Your task to perform on an android device: toggle location history Image 0: 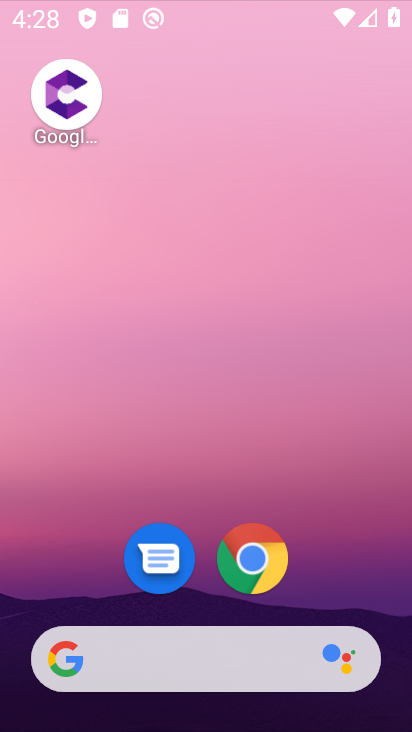
Step 0: click (259, 102)
Your task to perform on an android device: toggle location history Image 1: 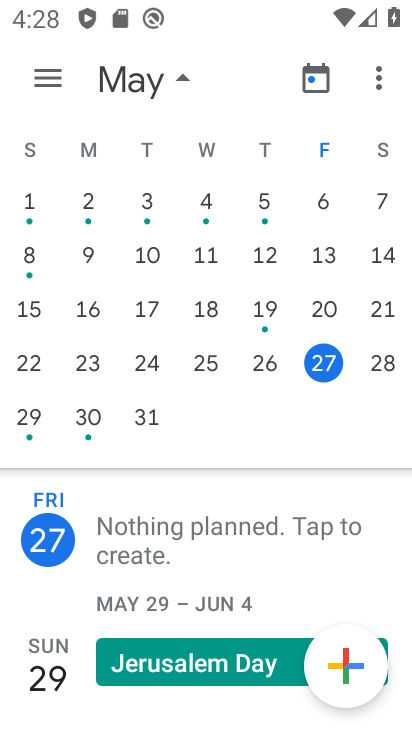
Step 1: press home button
Your task to perform on an android device: toggle location history Image 2: 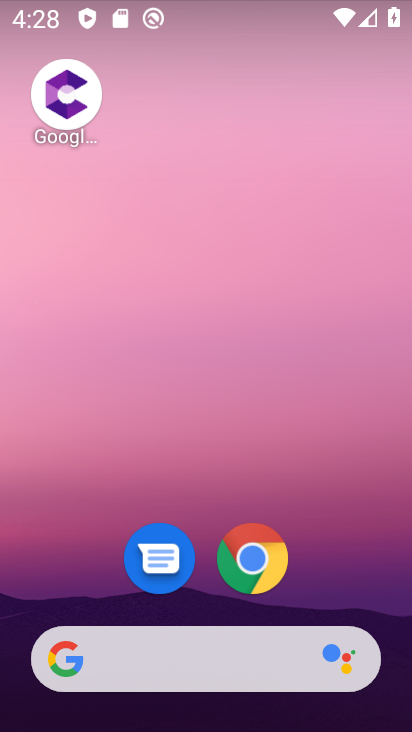
Step 2: drag from (359, 607) to (231, 64)
Your task to perform on an android device: toggle location history Image 3: 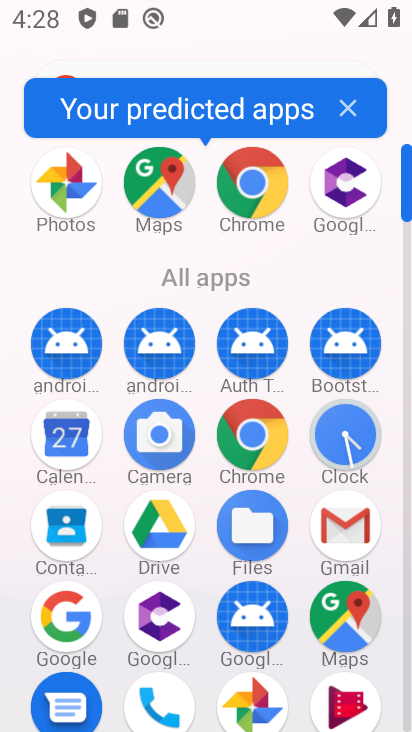
Step 3: click (157, 188)
Your task to perform on an android device: toggle location history Image 4: 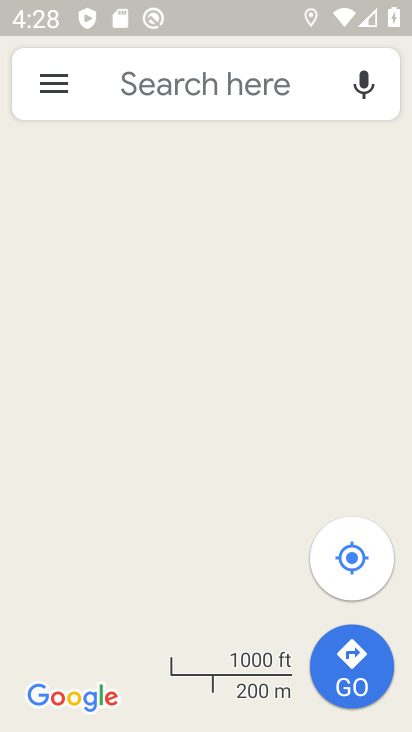
Step 4: click (50, 94)
Your task to perform on an android device: toggle location history Image 5: 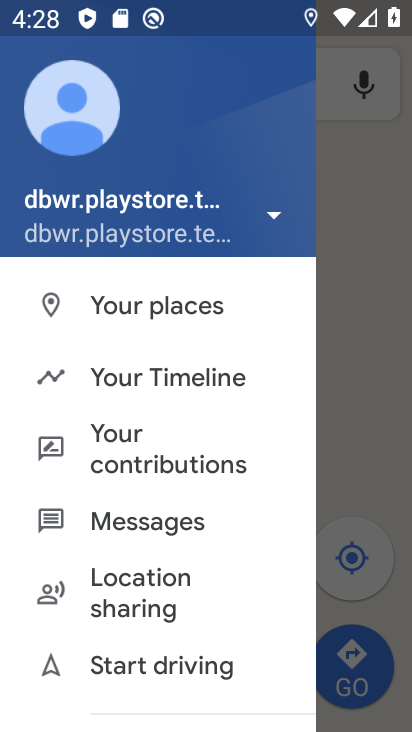
Step 5: click (147, 378)
Your task to perform on an android device: toggle location history Image 6: 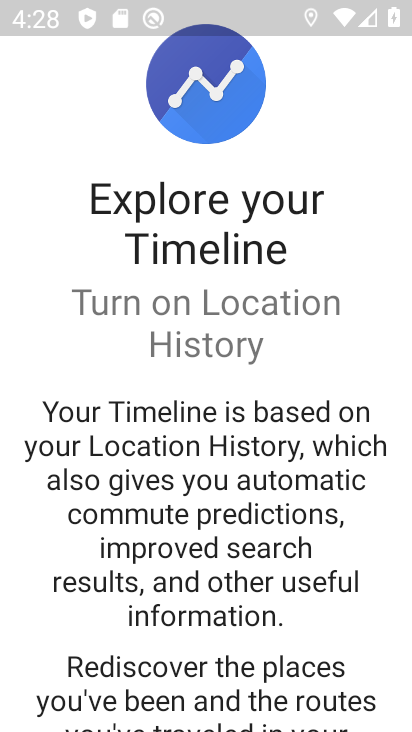
Step 6: drag from (284, 641) to (294, 308)
Your task to perform on an android device: toggle location history Image 7: 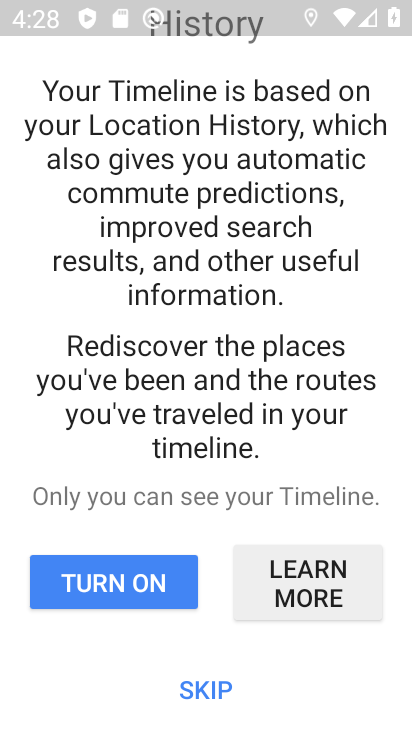
Step 7: click (195, 691)
Your task to perform on an android device: toggle location history Image 8: 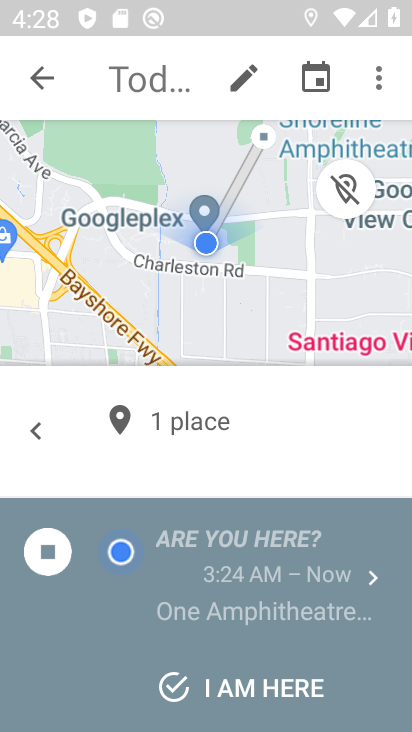
Step 8: click (385, 59)
Your task to perform on an android device: toggle location history Image 9: 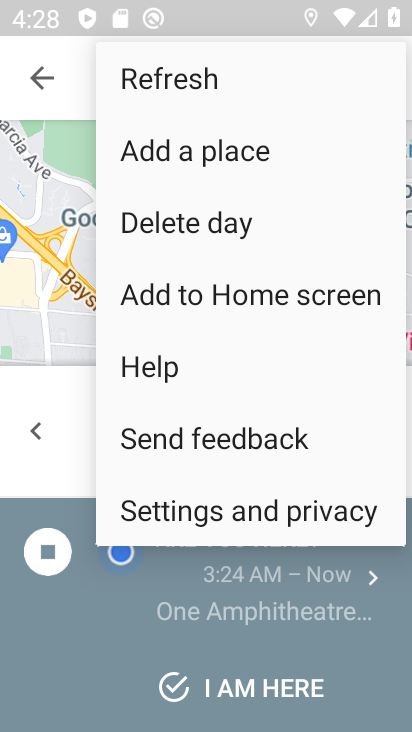
Step 9: click (266, 511)
Your task to perform on an android device: toggle location history Image 10: 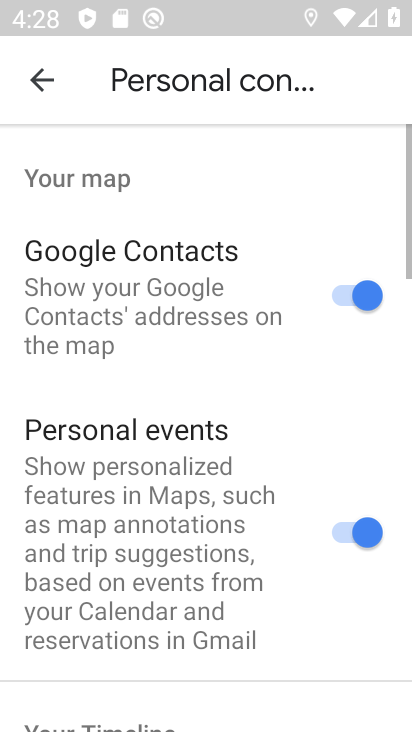
Step 10: drag from (269, 630) to (220, 69)
Your task to perform on an android device: toggle location history Image 11: 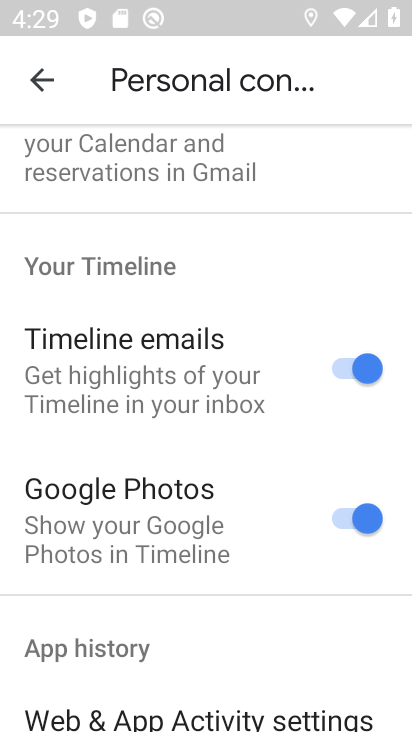
Step 11: drag from (242, 652) to (223, 234)
Your task to perform on an android device: toggle location history Image 12: 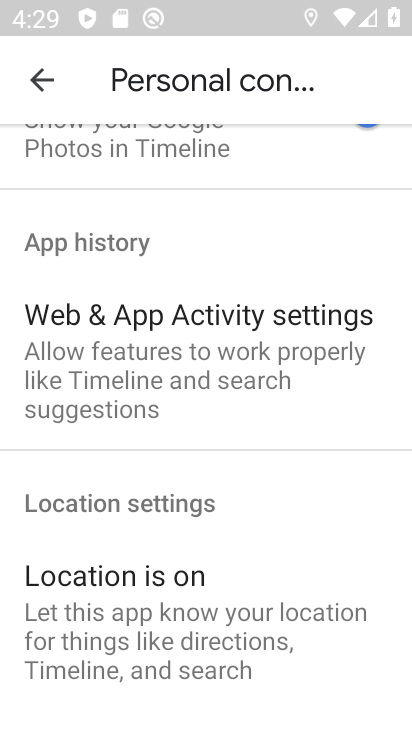
Step 12: drag from (249, 603) to (211, 314)
Your task to perform on an android device: toggle location history Image 13: 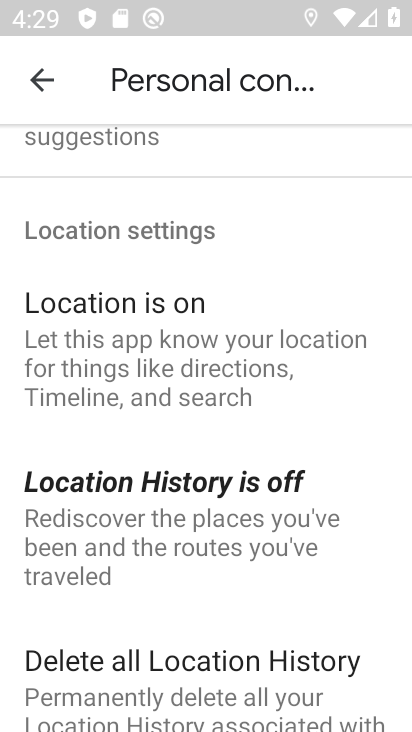
Step 13: click (232, 524)
Your task to perform on an android device: toggle location history Image 14: 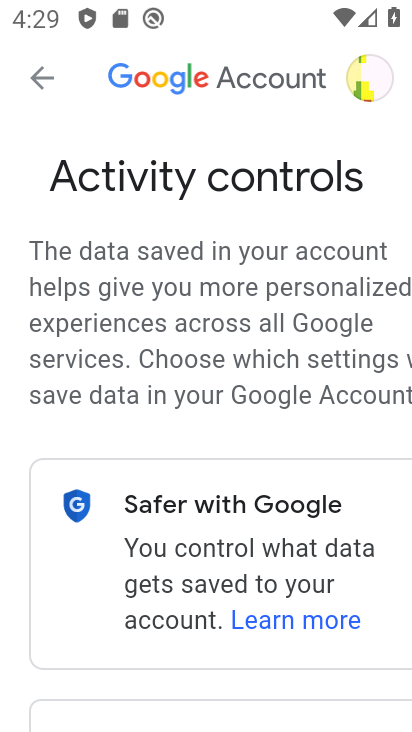
Step 14: drag from (189, 686) to (188, 258)
Your task to perform on an android device: toggle location history Image 15: 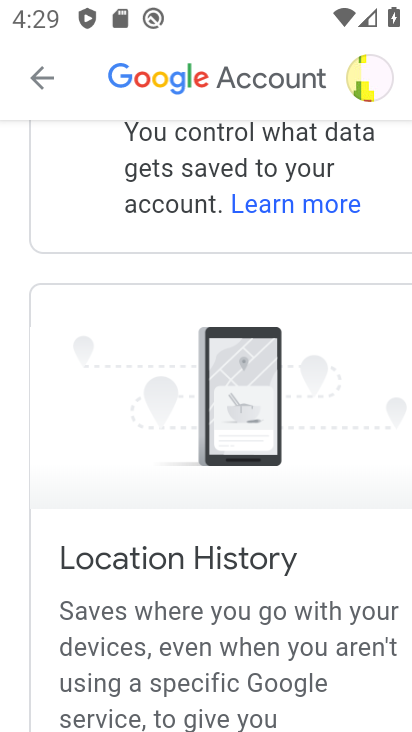
Step 15: drag from (230, 616) to (208, 257)
Your task to perform on an android device: toggle location history Image 16: 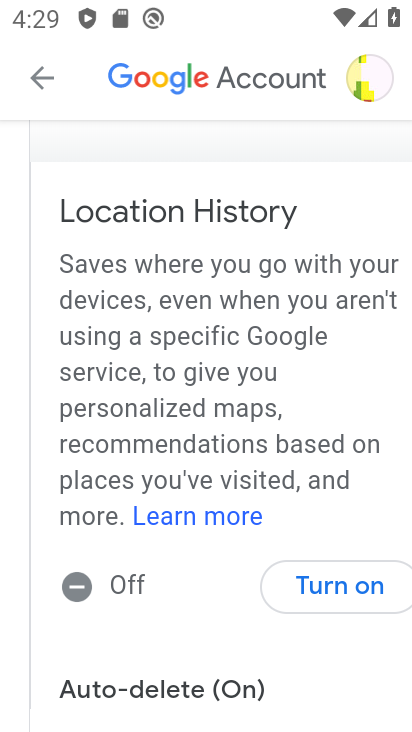
Step 16: click (302, 602)
Your task to perform on an android device: toggle location history Image 17: 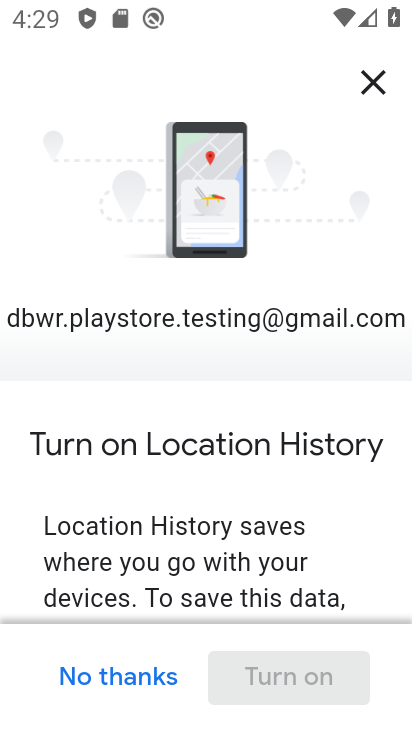
Step 17: drag from (302, 602) to (234, 71)
Your task to perform on an android device: toggle location history Image 18: 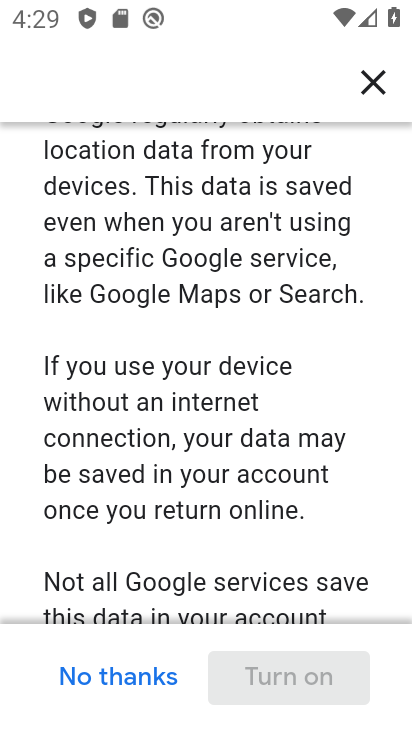
Step 18: drag from (278, 541) to (256, 71)
Your task to perform on an android device: toggle location history Image 19: 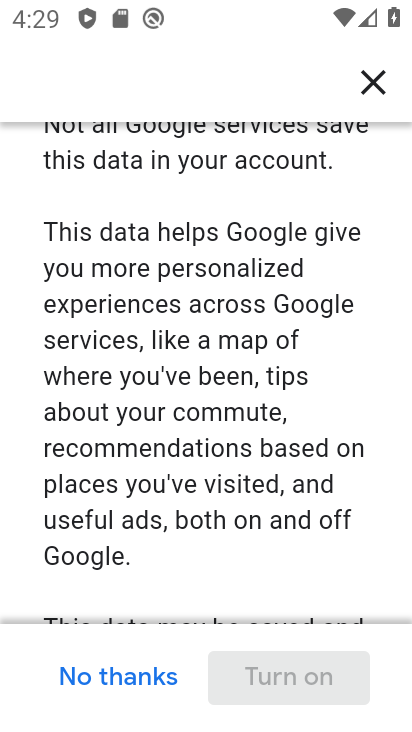
Step 19: drag from (286, 576) to (234, 171)
Your task to perform on an android device: toggle location history Image 20: 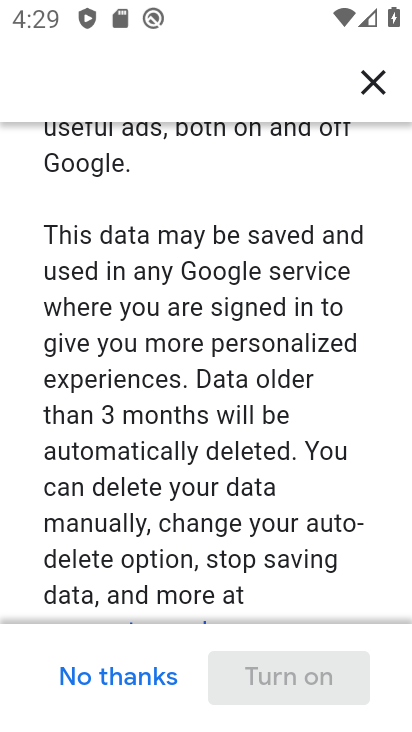
Step 20: drag from (283, 539) to (235, 156)
Your task to perform on an android device: toggle location history Image 21: 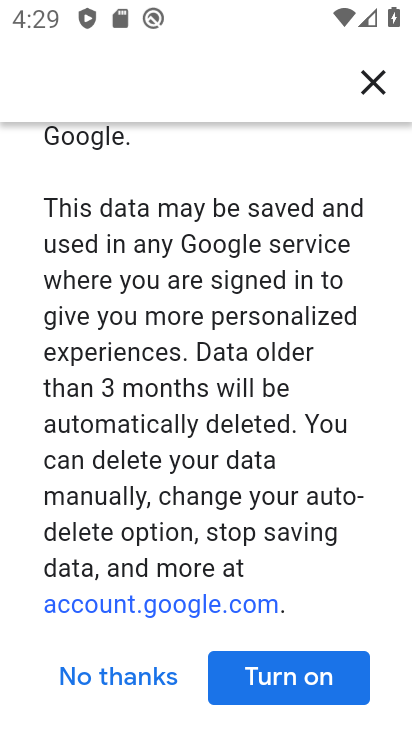
Step 21: click (293, 670)
Your task to perform on an android device: toggle location history Image 22: 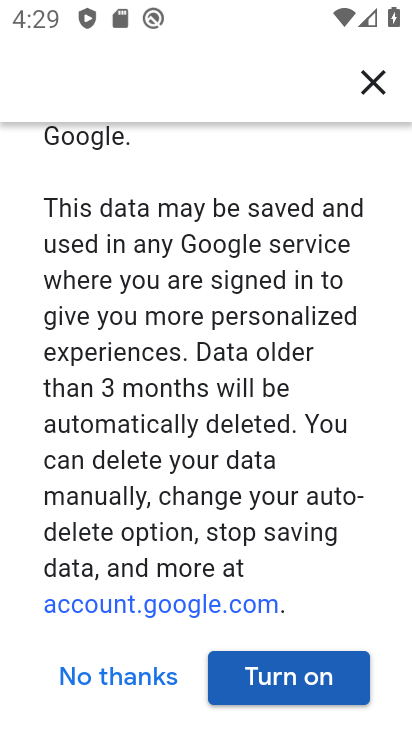
Step 22: click (332, 691)
Your task to perform on an android device: toggle location history Image 23: 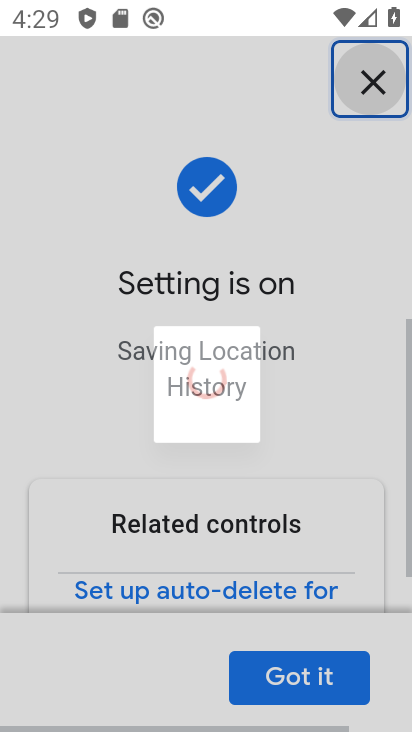
Step 23: click (302, 691)
Your task to perform on an android device: toggle location history Image 24: 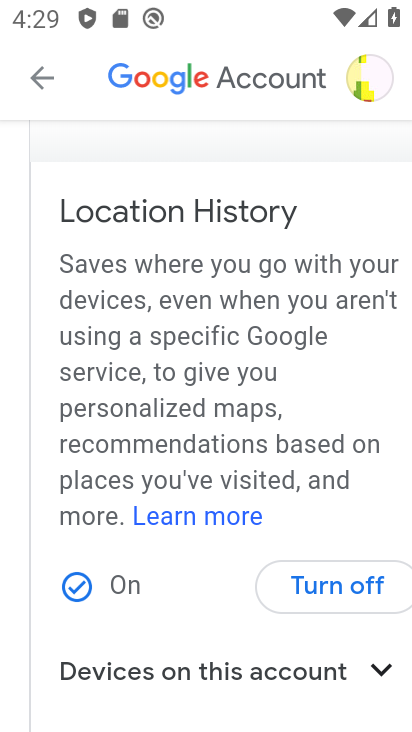
Step 24: task complete